Your task to perform on an android device: snooze an email in the gmail app Image 0: 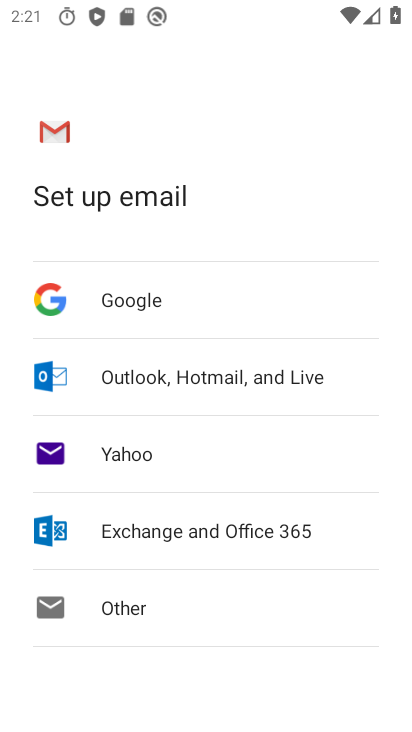
Step 0: press home button
Your task to perform on an android device: snooze an email in the gmail app Image 1: 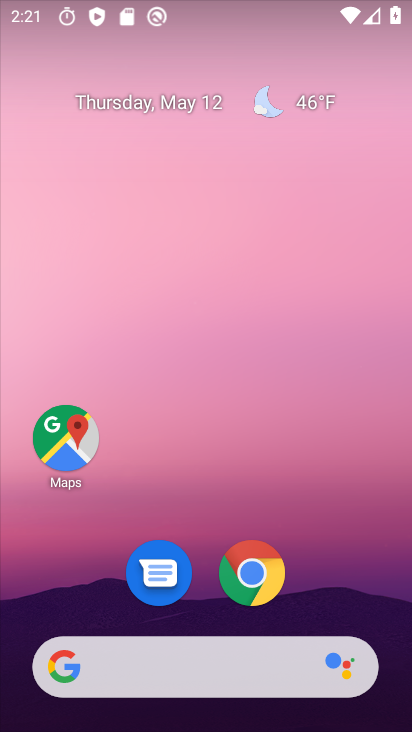
Step 1: drag from (201, 621) to (219, 170)
Your task to perform on an android device: snooze an email in the gmail app Image 2: 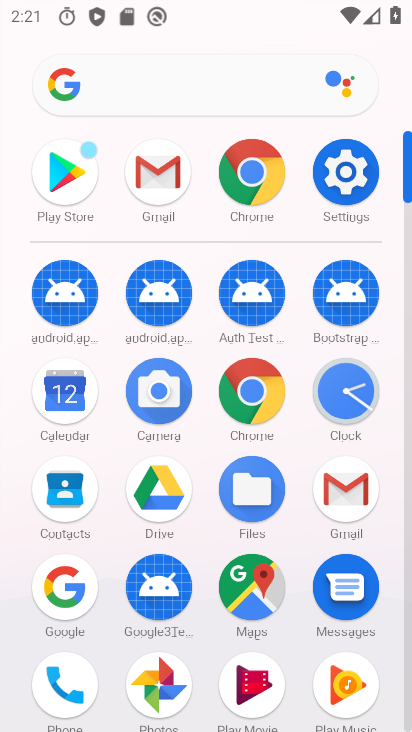
Step 2: click (141, 180)
Your task to perform on an android device: snooze an email in the gmail app Image 3: 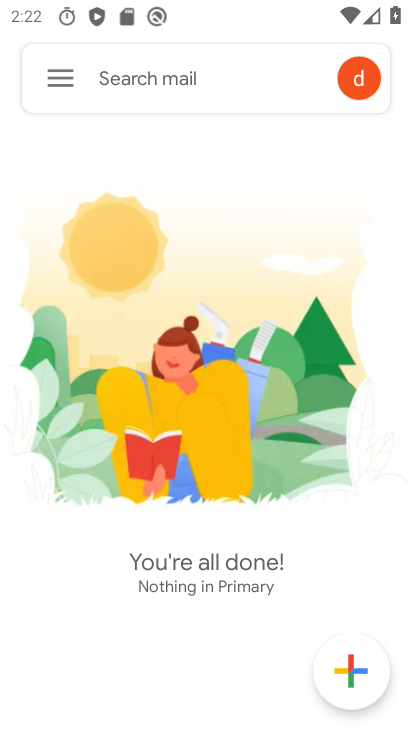
Step 3: task complete